Your task to perform on an android device: turn on notifications settings in the gmail app Image 0: 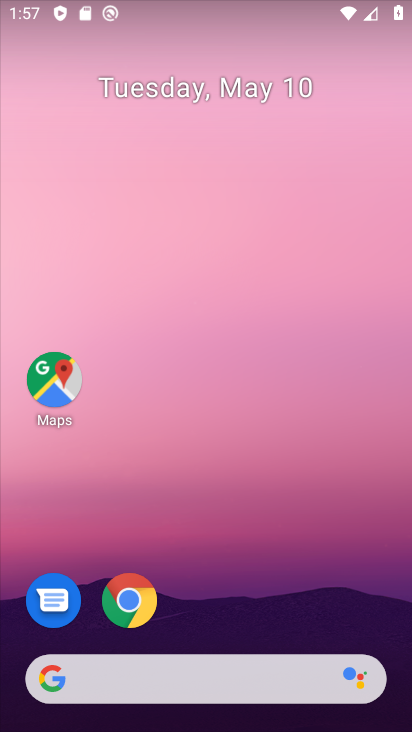
Step 0: drag from (213, 612) to (246, 249)
Your task to perform on an android device: turn on notifications settings in the gmail app Image 1: 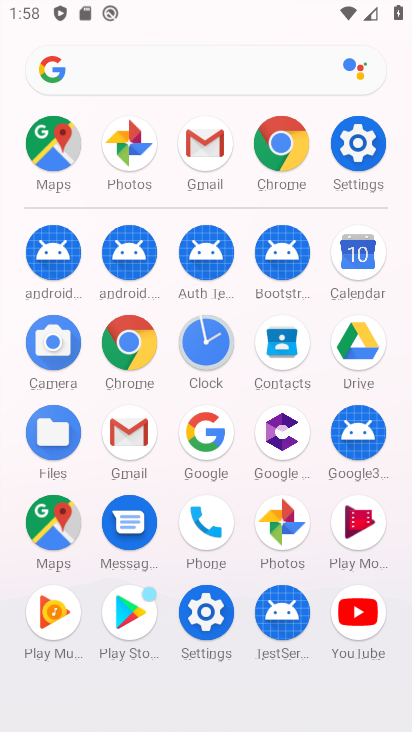
Step 1: click (139, 447)
Your task to perform on an android device: turn on notifications settings in the gmail app Image 2: 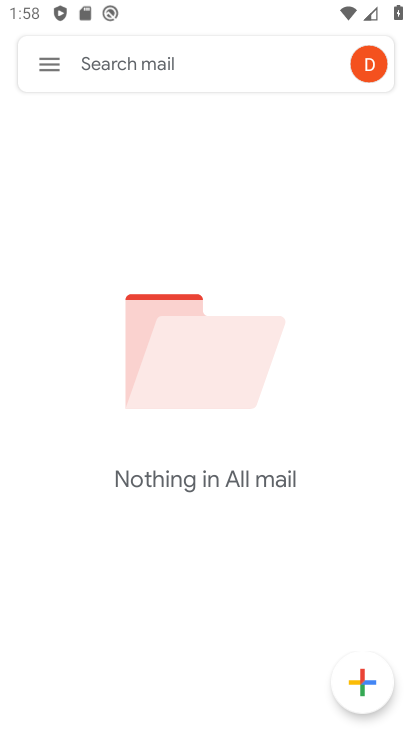
Step 2: click (43, 69)
Your task to perform on an android device: turn on notifications settings in the gmail app Image 3: 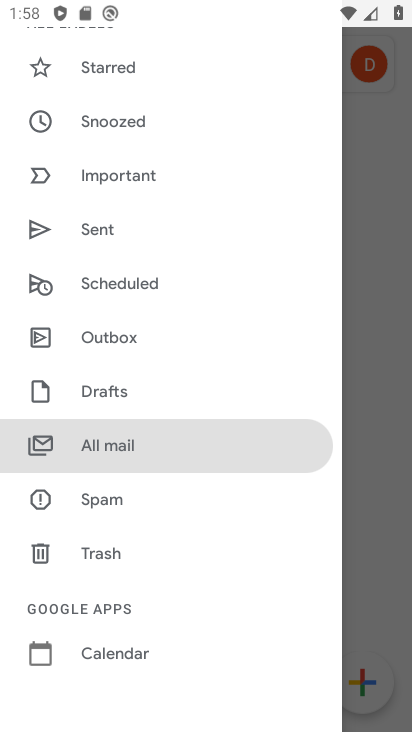
Step 3: drag from (119, 575) to (132, 238)
Your task to perform on an android device: turn on notifications settings in the gmail app Image 4: 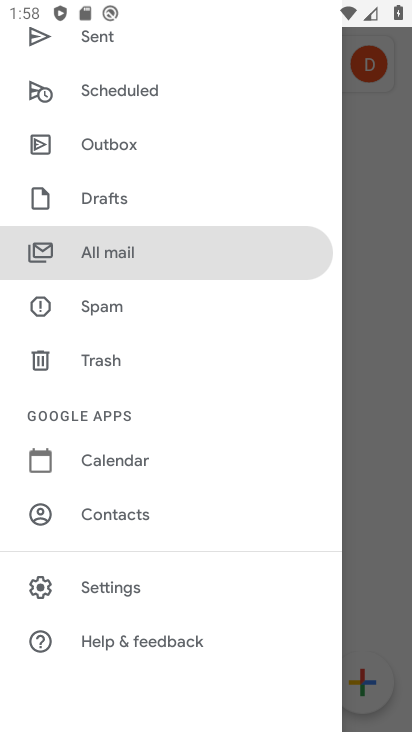
Step 4: click (139, 586)
Your task to perform on an android device: turn on notifications settings in the gmail app Image 5: 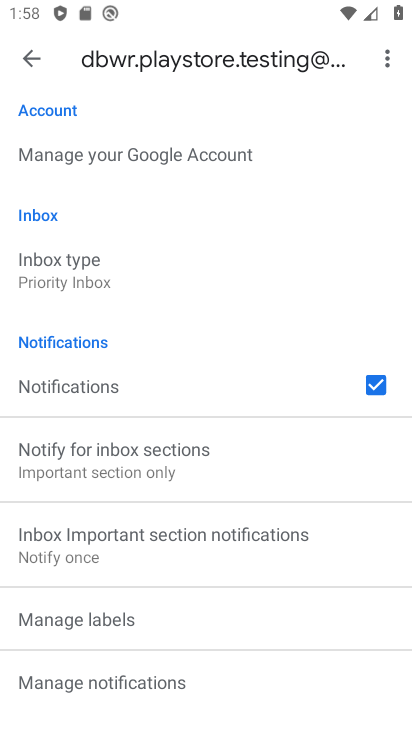
Step 5: click (29, 55)
Your task to perform on an android device: turn on notifications settings in the gmail app Image 6: 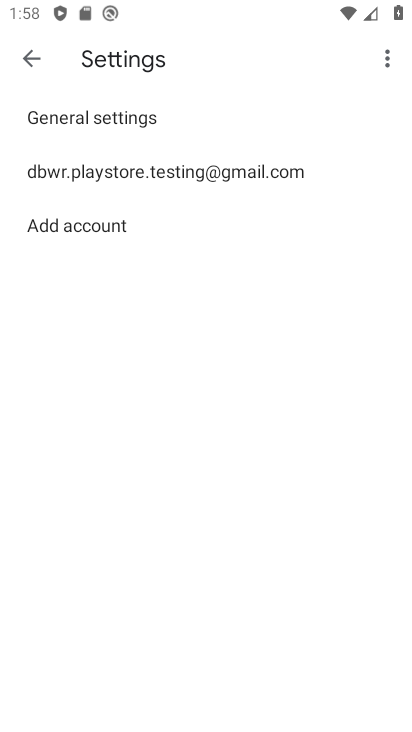
Step 6: click (74, 122)
Your task to perform on an android device: turn on notifications settings in the gmail app Image 7: 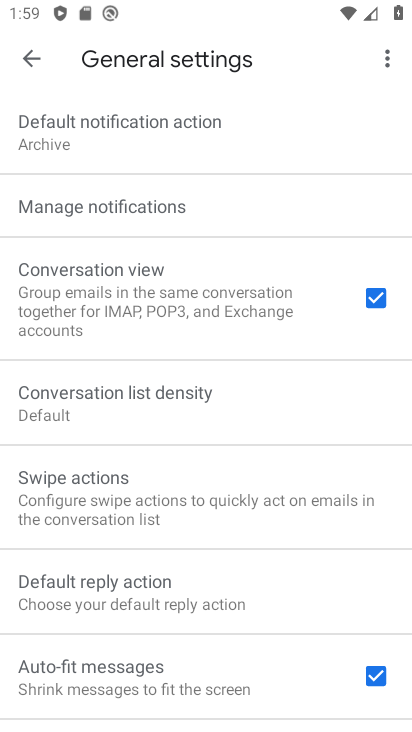
Step 7: click (136, 207)
Your task to perform on an android device: turn on notifications settings in the gmail app Image 8: 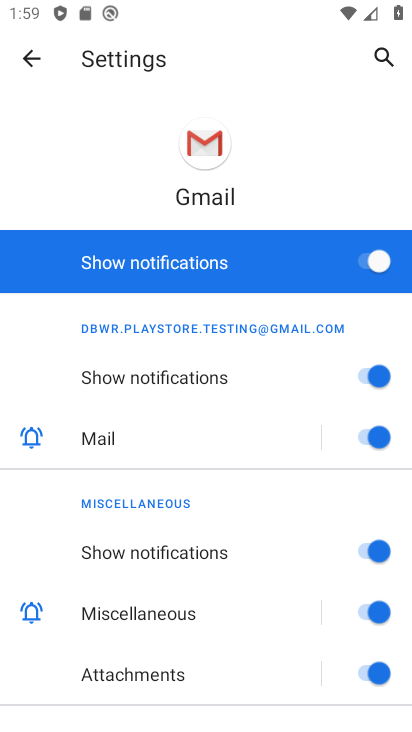
Step 8: task complete